Your task to perform on an android device: clear all cookies in the chrome app Image 0: 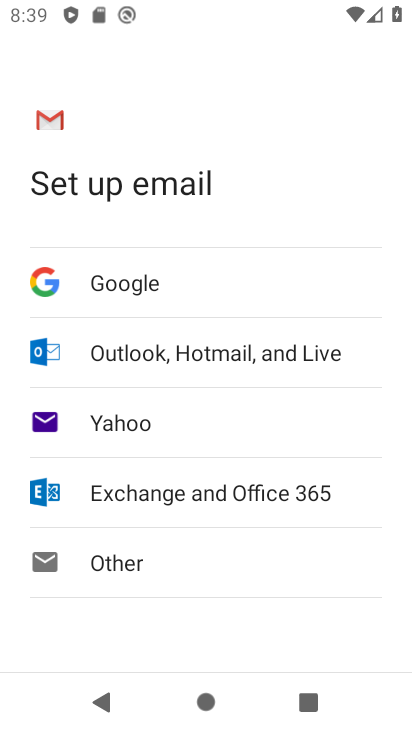
Step 0: press home button
Your task to perform on an android device: clear all cookies in the chrome app Image 1: 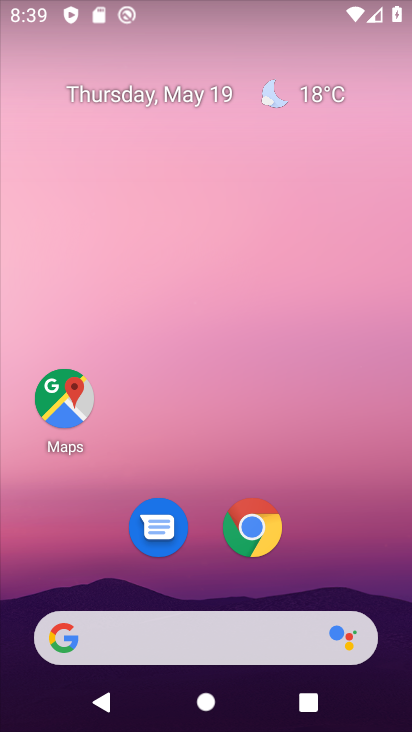
Step 1: click (244, 532)
Your task to perform on an android device: clear all cookies in the chrome app Image 2: 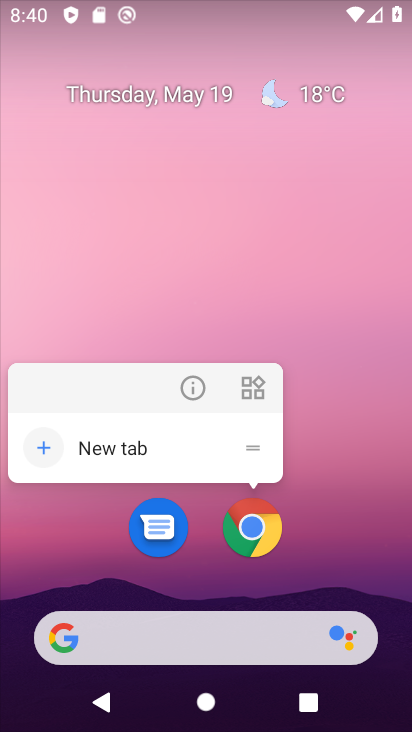
Step 2: click (259, 532)
Your task to perform on an android device: clear all cookies in the chrome app Image 3: 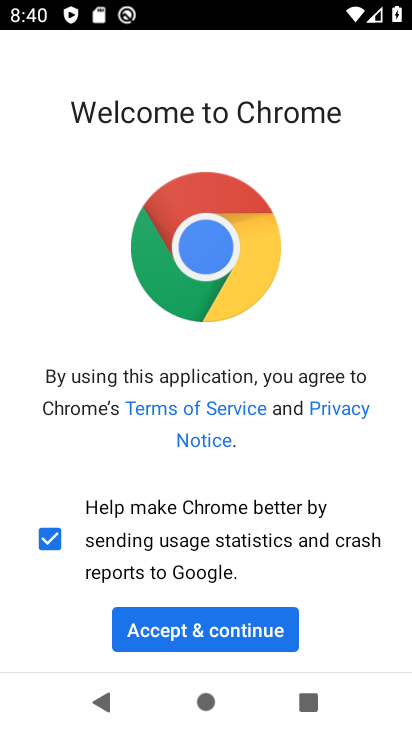
Step 3: click (171, 623)
Your task to perform on an android device: clear all cookies in the chrome app Image 4: 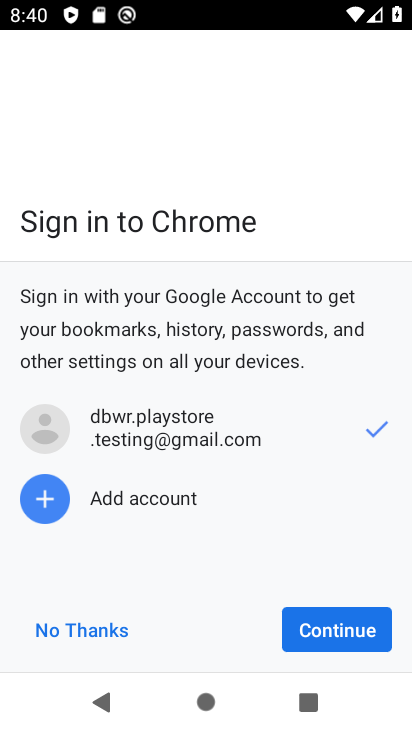
Step 4: click (312, 626)
Your task to perform on an android device: clear all cookies in the chrome app Image 5: 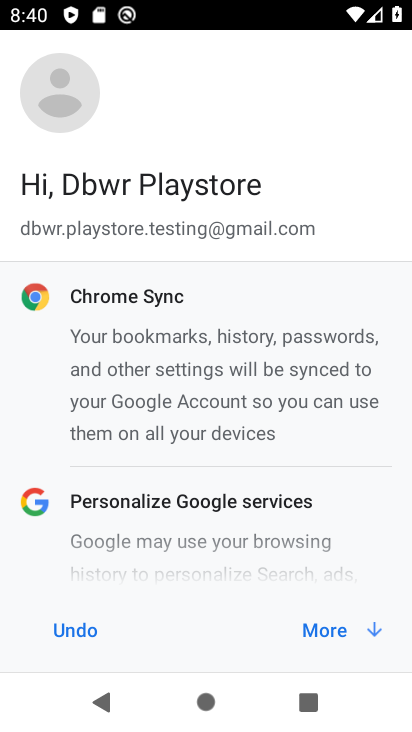
Step 5: click (320, 625)
Your task to perform on an android device: clear all cookies in the chrome app Image 6: 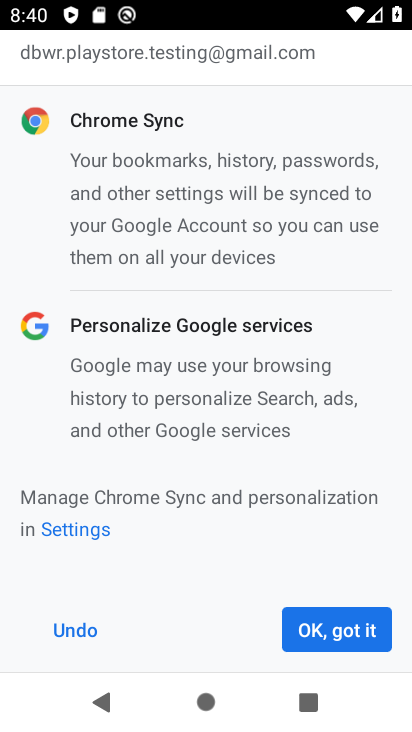
Step 6: click (311, 618)
Your task to perform on an android device: clear all cookies in the chrome app Image 7: 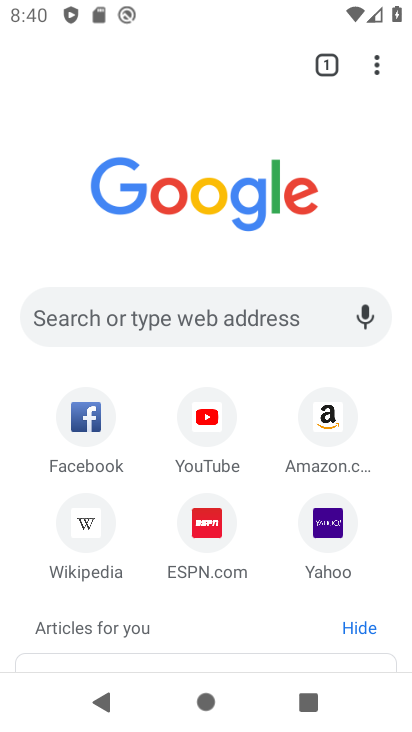
Step 7: click (382, 73)
Your task to perform on an android device: clear all cookies in the chrome app Image 8: 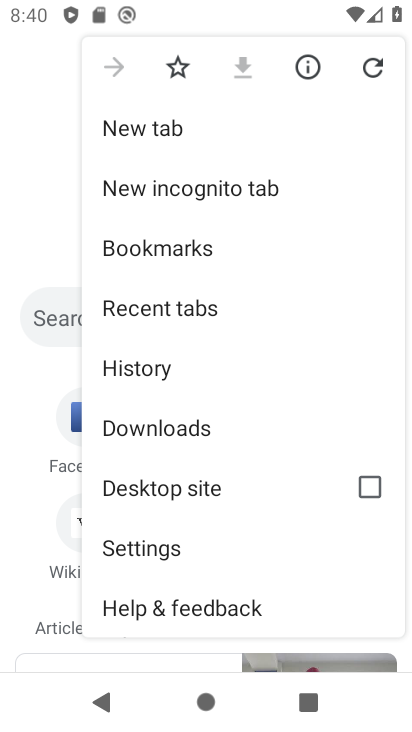
Step 8: click (140, 373)
Your task to perform on an android device: clear all cookies in the chrome app Image 9: 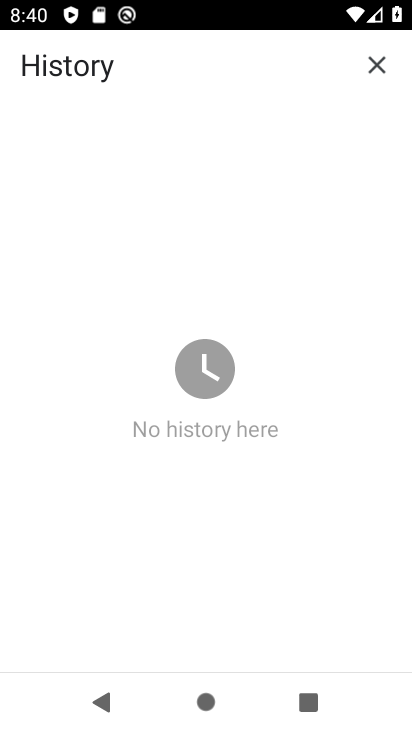
Step 9: task complete